Your task to perform on an android device: Go to Yahoo.com Image 0: 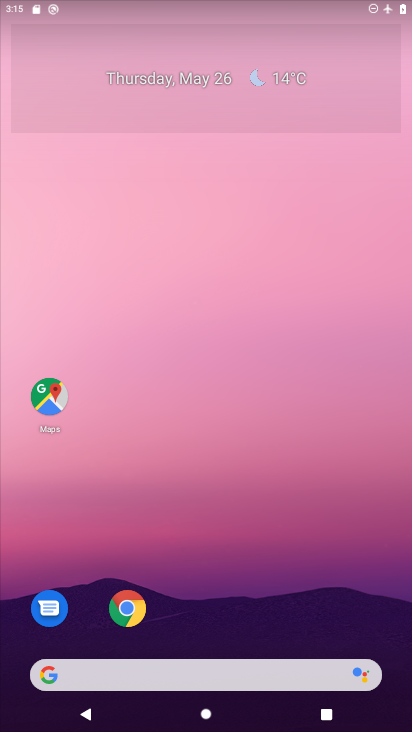
Step 0: drag from (359, 556) to (385, 66)
Your task to perform on an android device: Go to Yahoo.com Image 1: 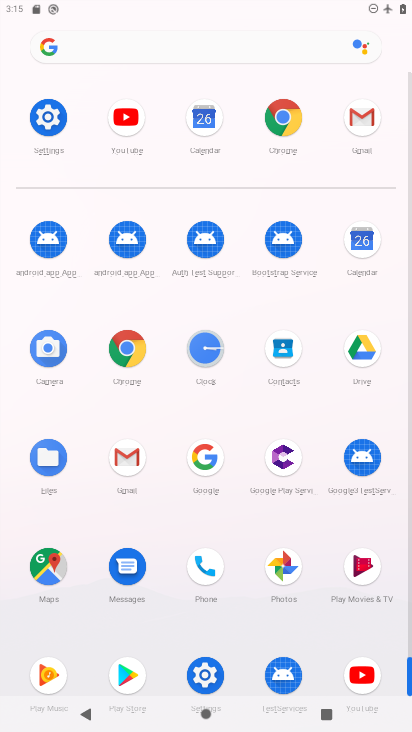
Step 1: click (286, 122)
Your task to perform on an android device: Go to Yahoo.com Image 2: 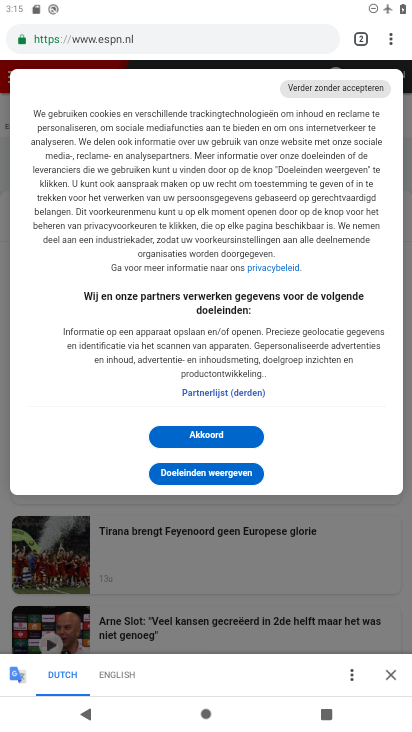
Step 2: click (180, 37)
Your task to perform on an android device: Go to Yahoo.com Image 3: 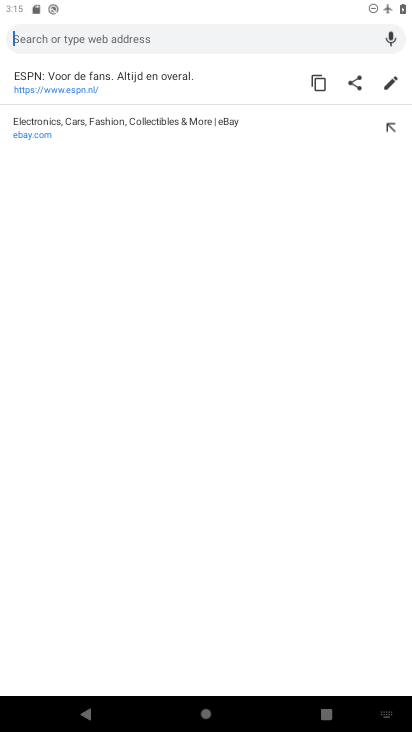
Step 3: type "yahoo"
Your task to perform on an android device: Go to Yahoo.com Image 4: 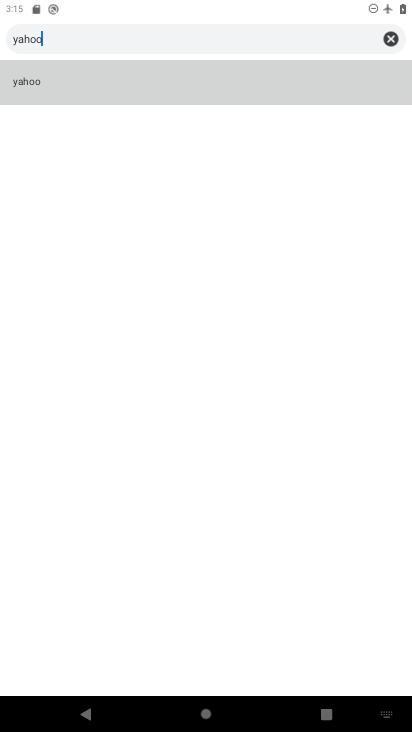
Step 4: click (10, 77)
Your task to perform on an android device: Go to Yahoo.com Image 5: 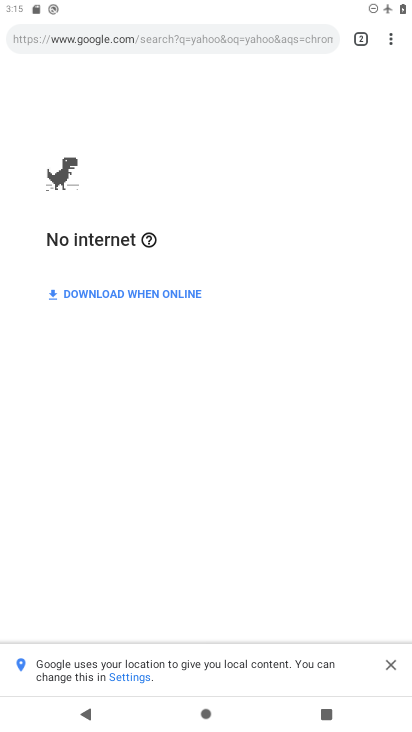
Step 5: task complete